Your task to perform on an android device: turn on sleep mode Image 0: 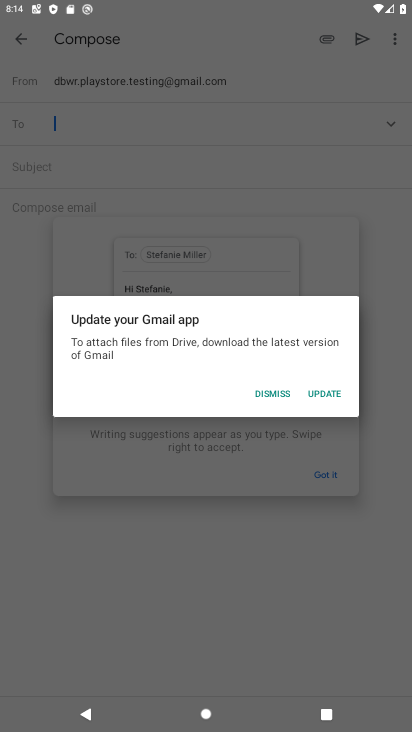
Step 0: press home button
Your task to perform on an android device: turn on sleep mode Image 1: 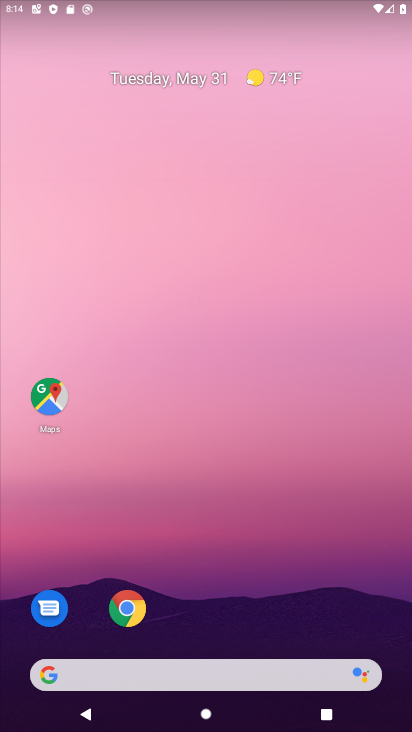
Step 1: drag from (216, 640) to (386, 110)
Your task to perform on an android device: turn on sleep mode Image 2: 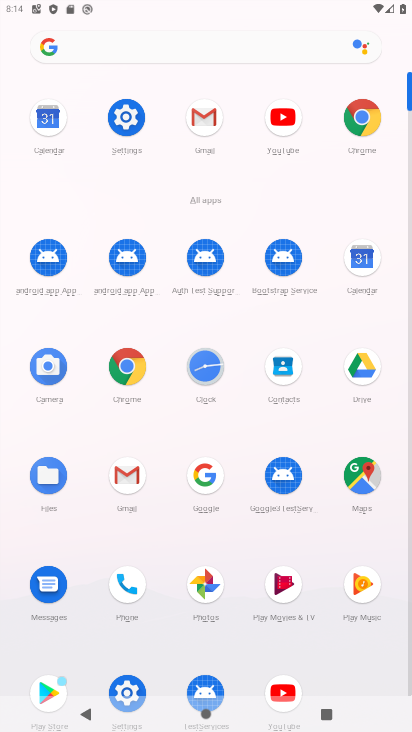
Step 2: click (133, 130)
Your task to perform on an android device: turn on sleep mode Image 3: 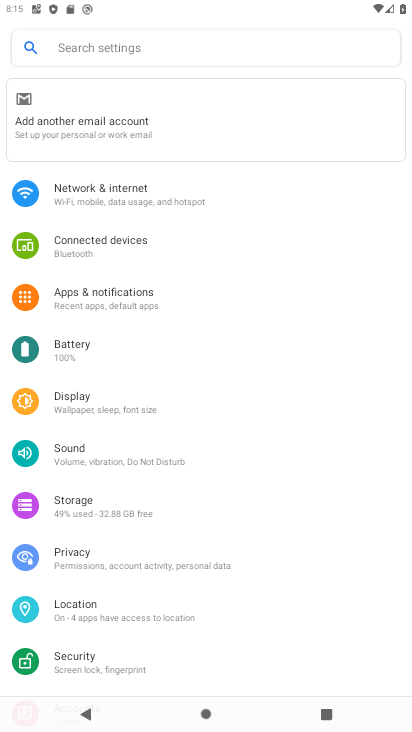
Step 3: click (88, 398)
Your task to perform on an android device: turn on sleep mode Image 4: 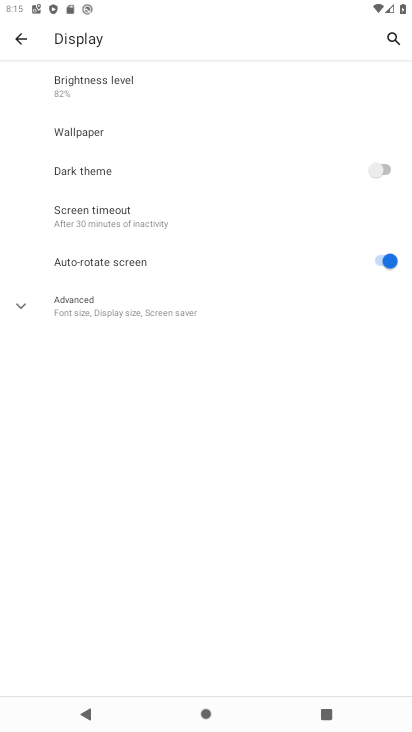
Step 4: task complete